Your task to perform on an android device: move a message to another label in the gmail app Image 0: 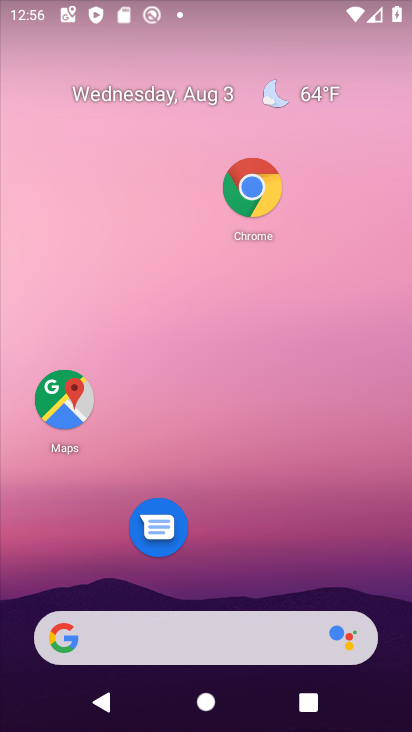
Step 0: drag from (242, 579) to (241, 76)
Your task to perform on an android device: move a message to another label in the gmail app Image 1: 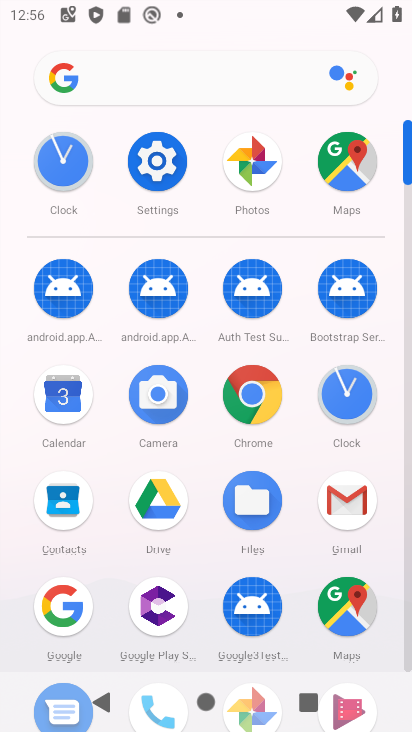
Step 1: click (364, 508)
Your task to perform on an android device: move a message to another label in the gmail app Image 2: 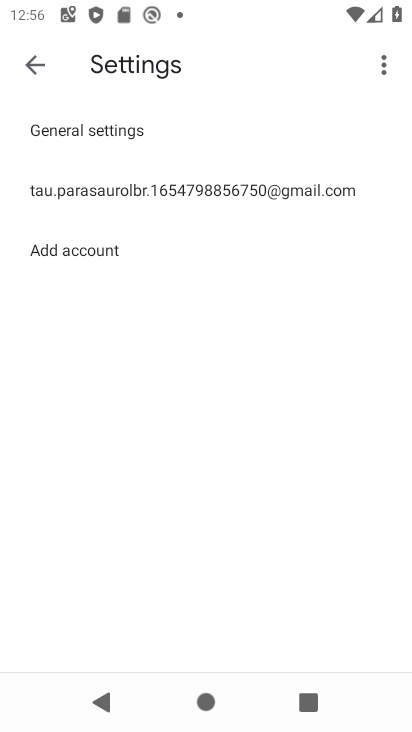
Step 2: click (34, 65)
Your task to perform on an android device: move a message to another label in the gmail app Image 3: 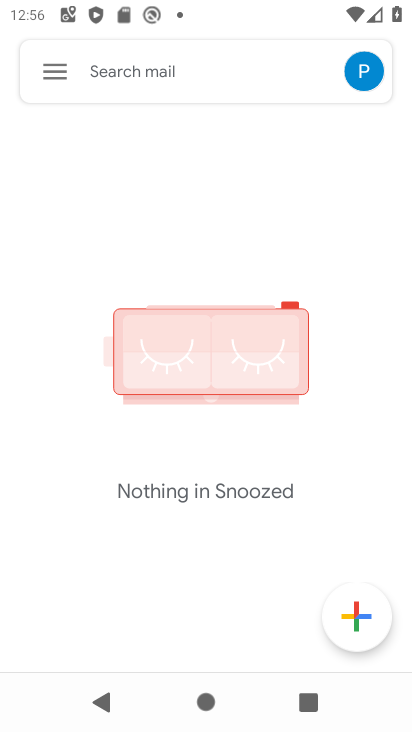
Step 3: click (57, 62)
Your task to perform on an android device: move a message to another label in the gmail app Image 4: 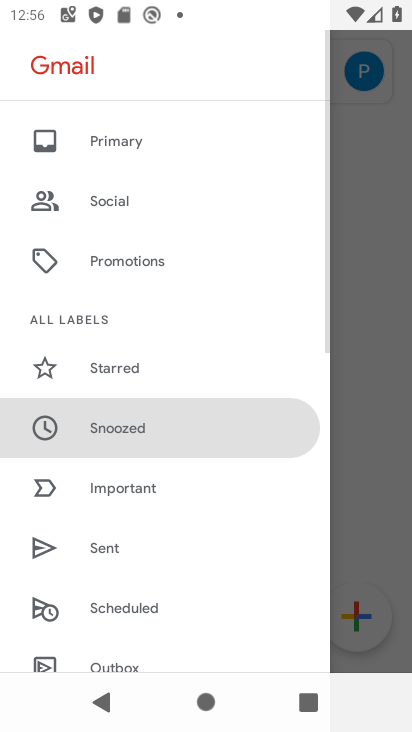
Step 4: drag from (106, 149) to (119, 394)
Your task to perform on an android device: move a message to another label in the gmail app Image 5: 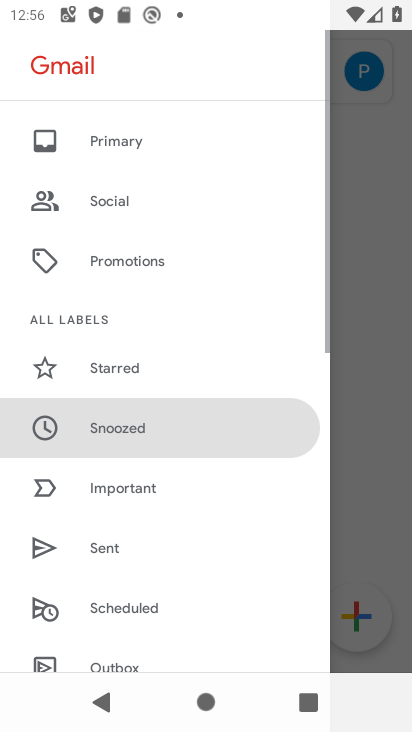
Step 5: click (126, 140)
Your task to perform on an android device: move a message to another label in the gmail app Image 6: 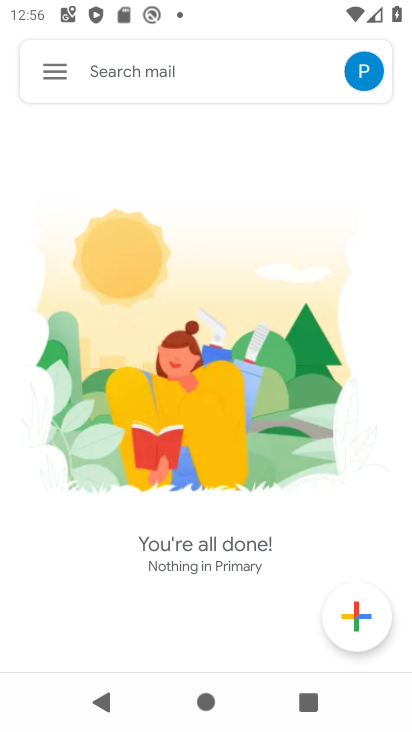
Step 6: task complete